Your task to perform on an android device: add a label to a message in the gmail app Image 0: 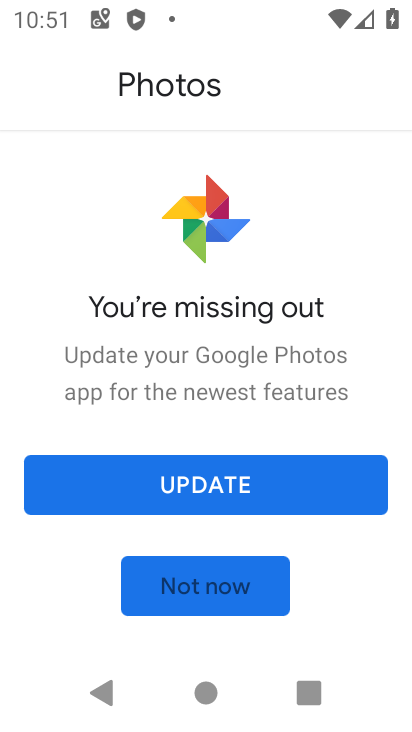
Step 0: press home button
Your task to perform on an android device: add a label to a message in the gmail app Image 1: 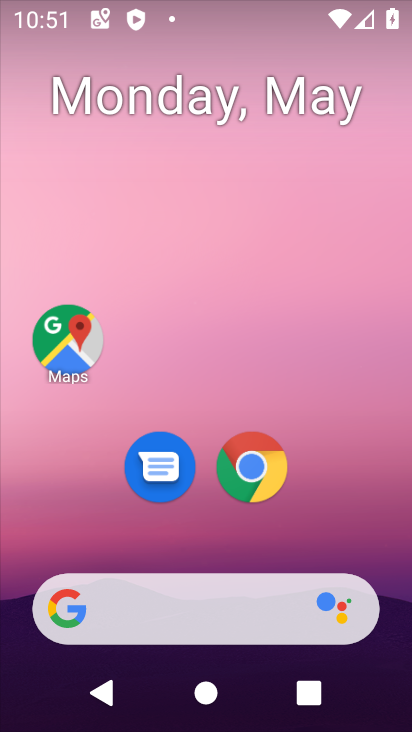
Step 1: drag from (403, 609) to (356, 100)
Your task to perform on an android device: add a label to a message in the gmail app Image 2: 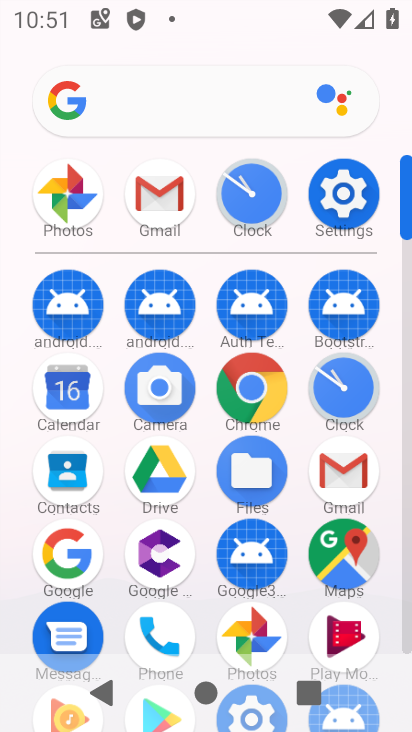
Step 2: click (407, 643)
Your task to perform on an android device: add a label to a message in the gmail app Image 3: 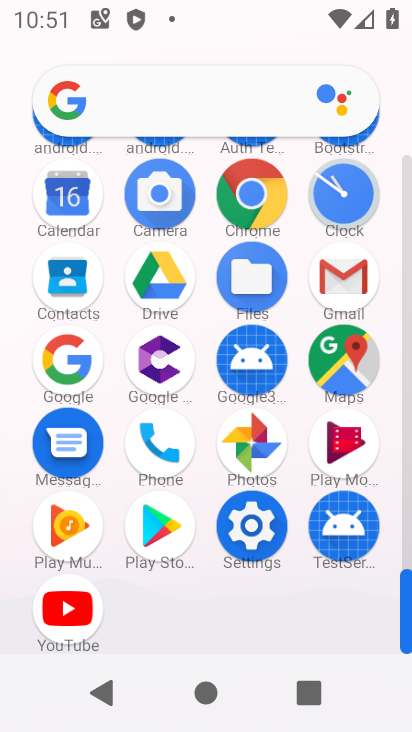
Step 3: click (341, 272)
Your task to perform on an android device: add a label to a message in the gmail app Image 4: 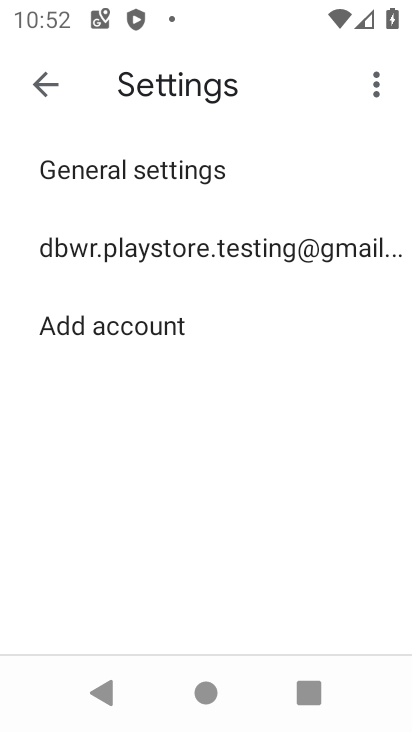
Step 4: press back button
Your task to perform on an android device: add a label to a message in the gmail app Image 5: 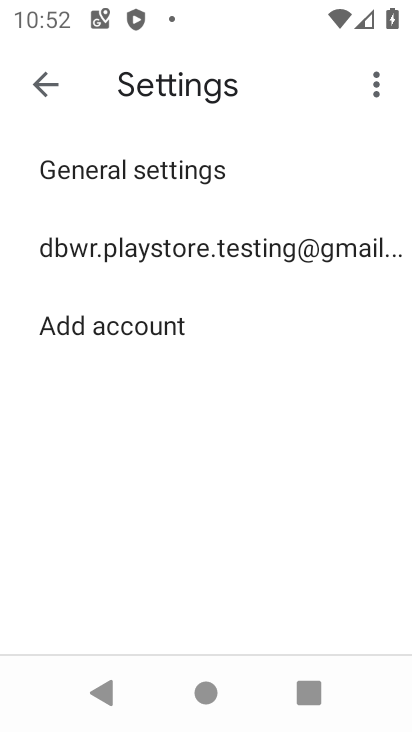
Step 5: press back button
Your task to perform on an android device: add a label to a message in the gmail app Image 6: 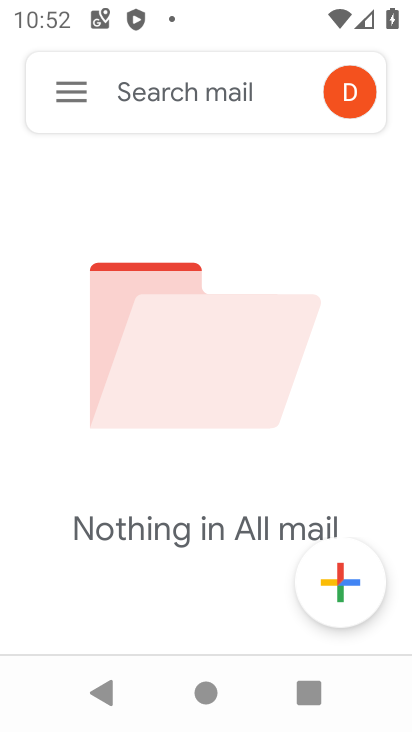
Step 6: click (59, 90)
Your task to perform on an android device: add a label to a message in the gmail app Image 7: 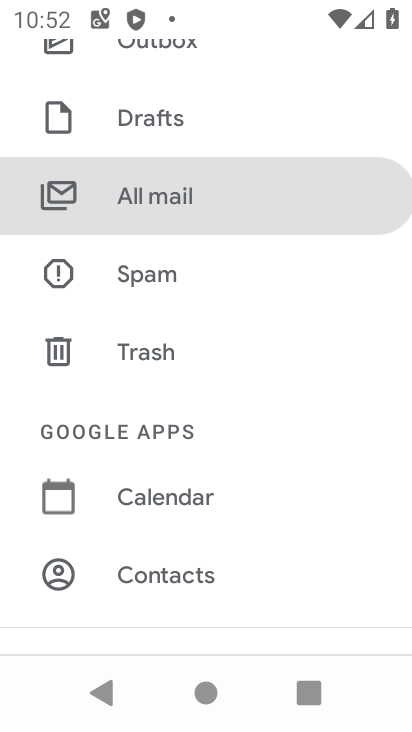
Step 7: click (176, 208)
Your task to perform on an android device: add a label to a message in the gmail app Image 8: 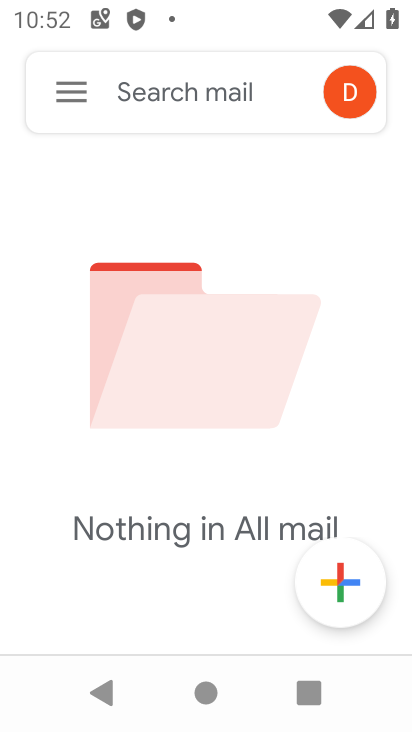
Step 8: task complete